Your task to perform on an android device: What is the speed of a tiger? Image 0: 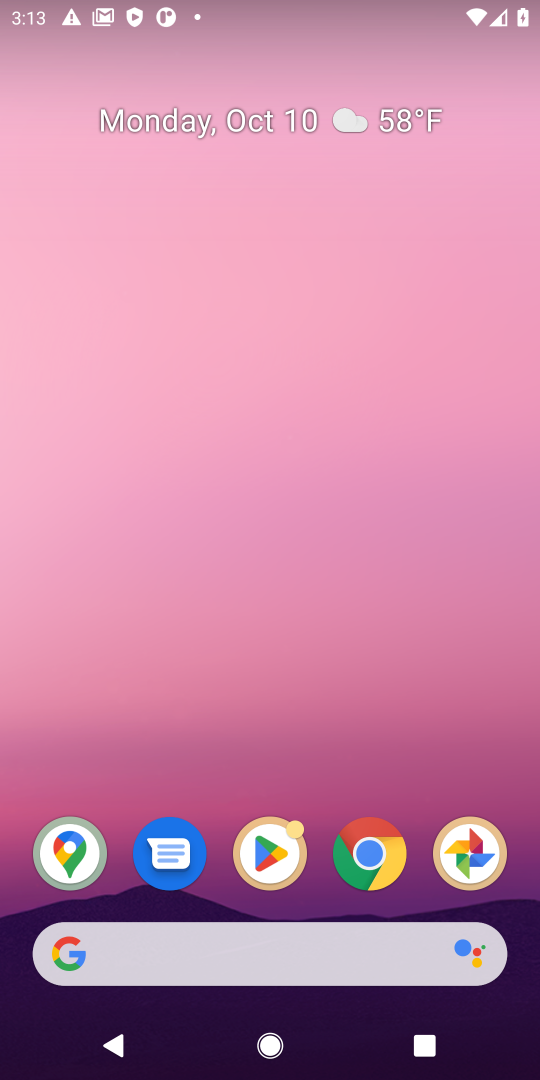
Step 0: click (383, 858)
Your task to perform on an android device: What is the speed of a tiger? Image 1: 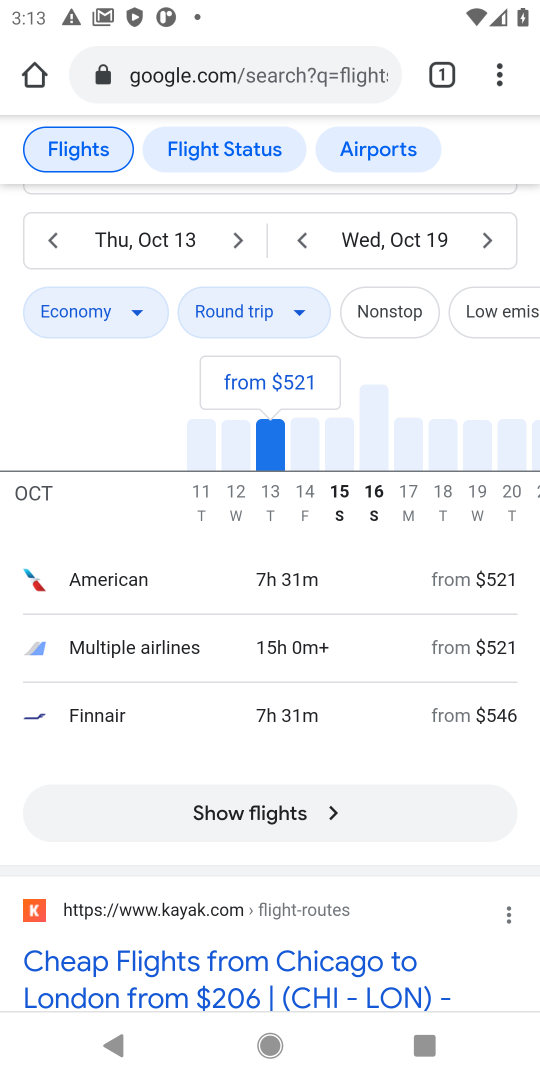
Step 1: drag from (522, 1075) to (491, 992)
Your task to perform on an android device: What is the speed of a tiger? Image 2: 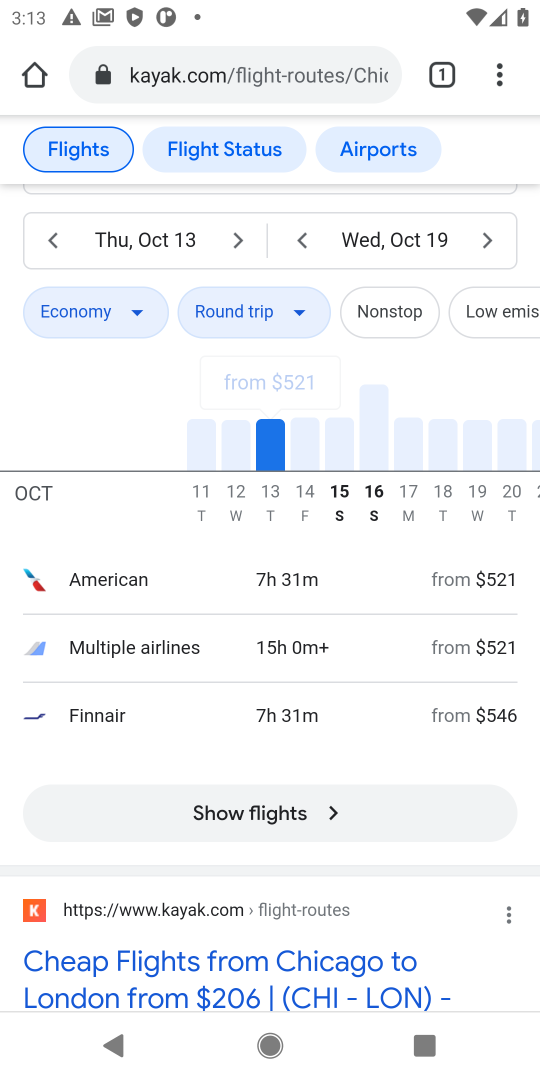
Step 2: click (247, 69)
Your task to perform on an android device: What is the speed of a tiger? Image 3: 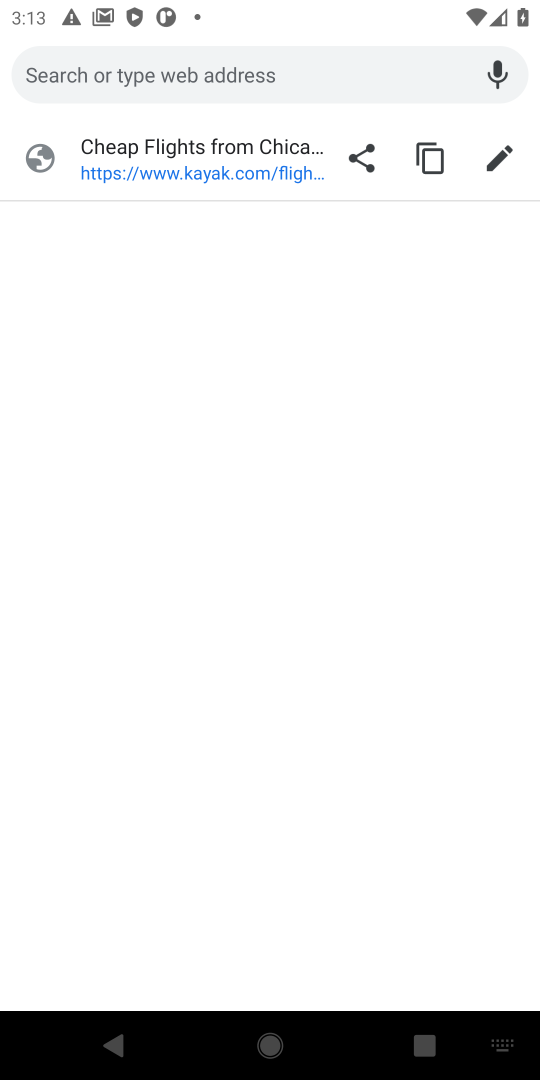
Step 3: type "What is the speed of a tiger?"
Your task to perform on an android device: What is the speed of a tiger? Image 4: 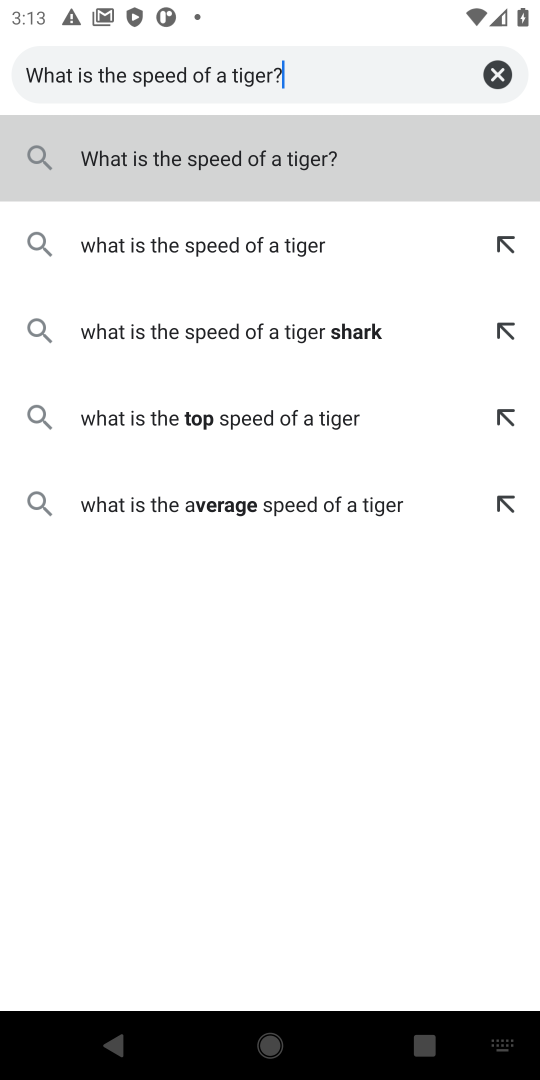
Step 4: click (272, 164)
Your task to perform on an android device: What is the speed of a tiger? Image 5: 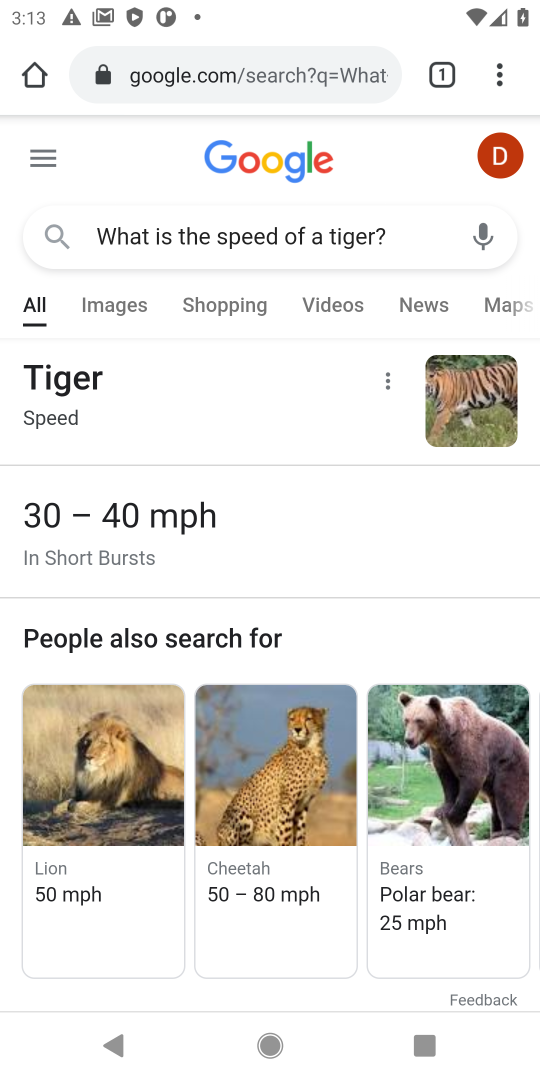
Step 5: task complete